Your task to perform on an android device: What's the weather going to be tomorrow? Image 0: 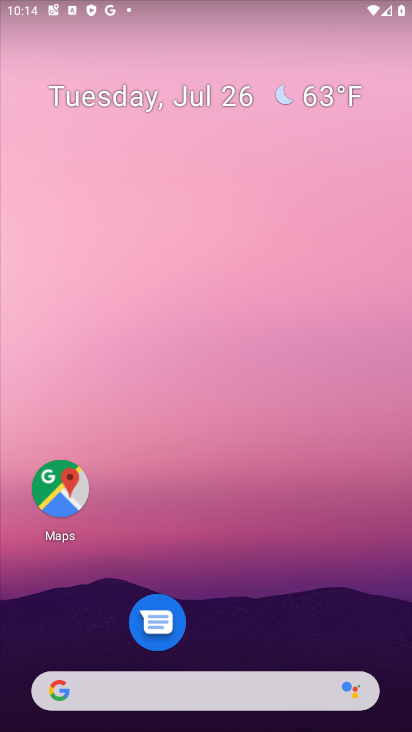
Step 0: drag from (327, 563) to (159, 5)
Your task to perform on an android device: What's the weather going to be tomorrow? Image 1: 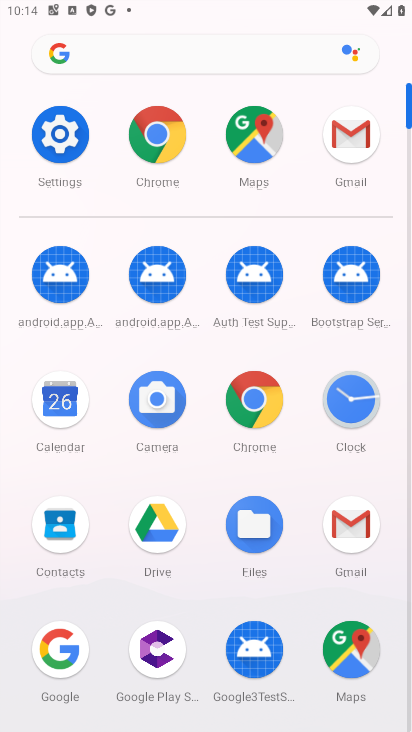
Step 1: click (42, 667)
Your task to perform on an android device: What's the weather going to be tomorrow? Image 2: 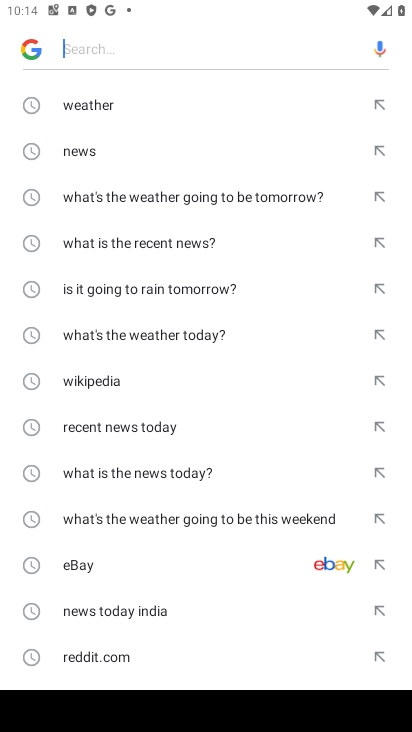
Step 2: click (87, 104)
Your task to perform on an android device: What's the weather going to be tomorrow? Image 3: 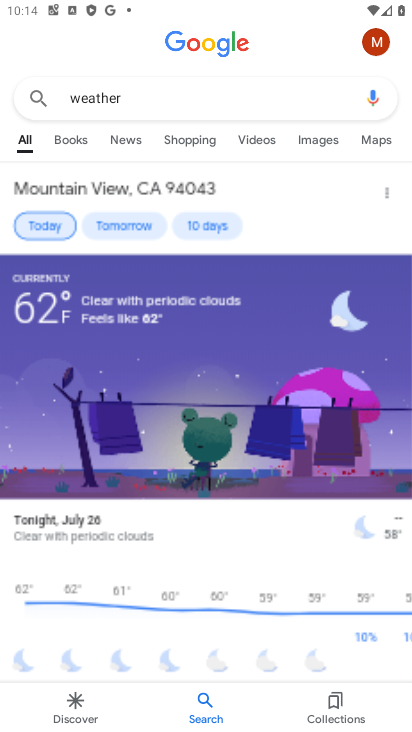
Step 3: task complete